Your task to perform on an android device: turn off priority inbox in the gmail app Image 0: 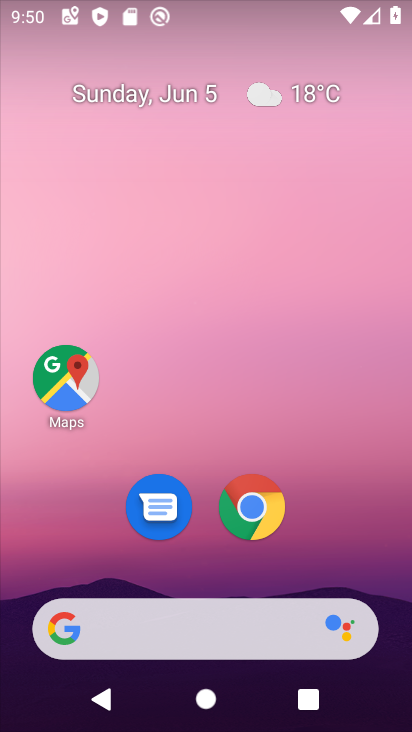
Step 0: drag from (201, 550) to (292, 20)
Your task to perform on an android device: turn off priority inbox in the gmail app Image 1: 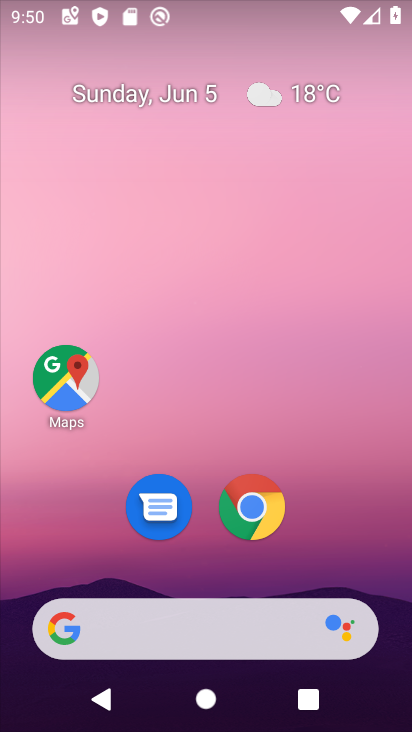
Step 1: drag from (230, 577) to (328, 25)
Your task to perform on an android device: turn off priority inbox in the gmail app Image 2: 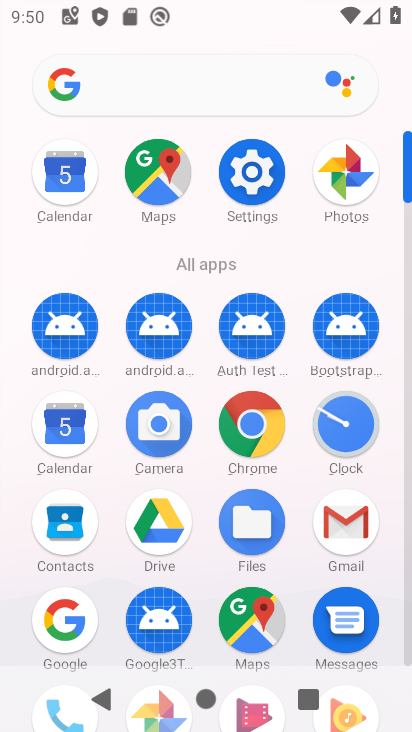
Step 2: click (363, 535)
Your task to perform on an android device: turn off priority inbox in the gmail app Image 3: 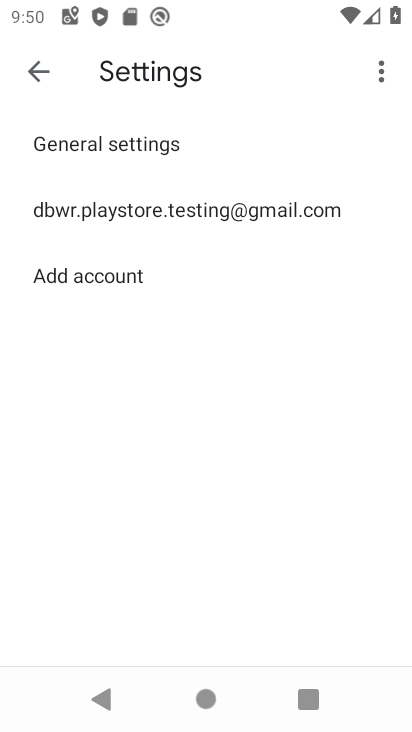
Step 3: click (175, 217)
Your task to perform on an android device: turn off priority inbox in the gmail app Image 4: 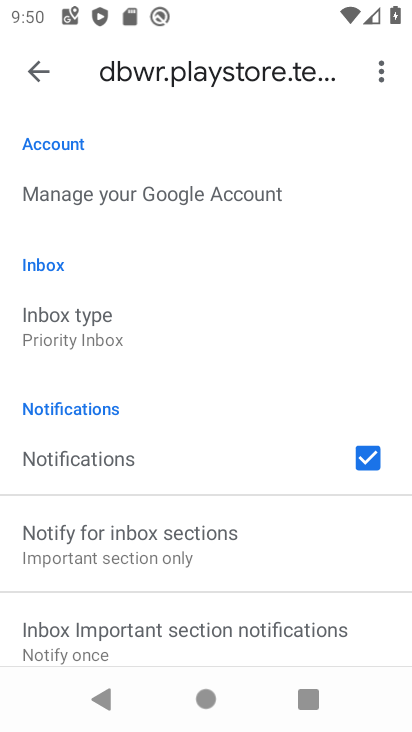
Step 4: click (114, 329)
Your task to perform on an android device: turn off priority inbox in the gmail app Image 5: 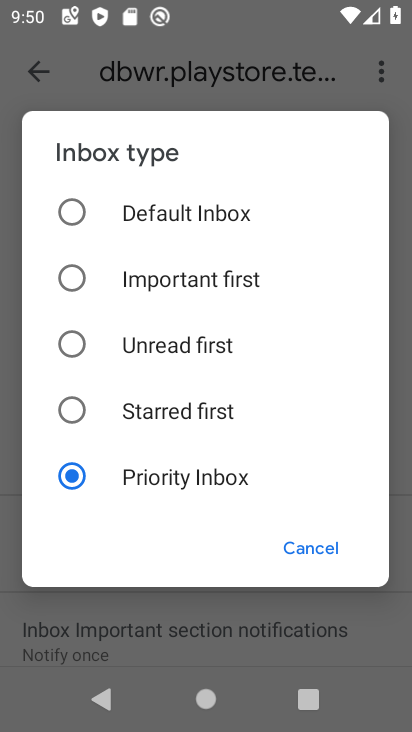
Step 5: click (126, 192)
Your task to perform on an android device: turn off priority inbox in the gmail app Image 6: 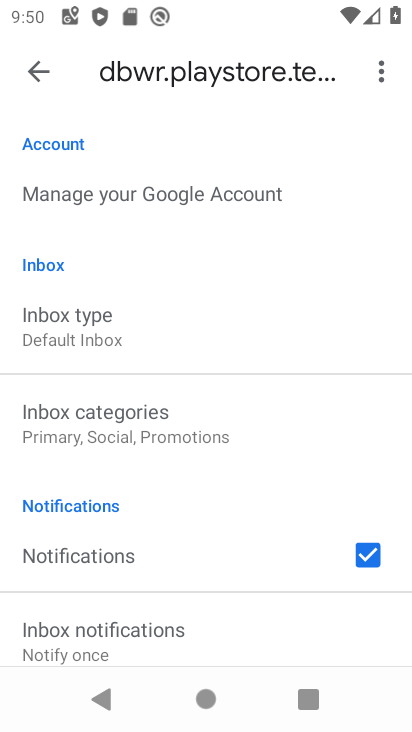
Step 6: task complete